Your task to perform on an android device: Open my contact list Image 0: 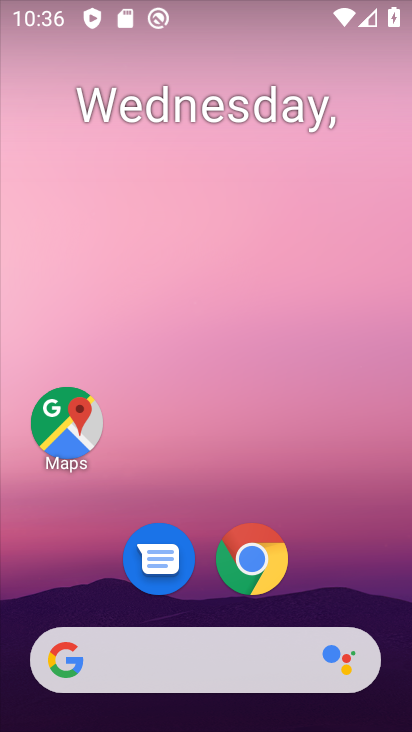
Step 0: drag from (389, 516) to (388, 172)
Your task to perform on an android device: Open my contact list Image 1: 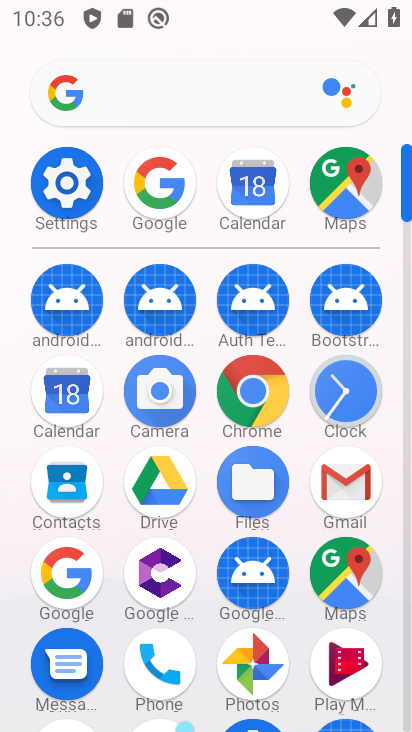
Step 1: click (78, 501)
Your task to perform on an android device: Open my contact list Image 2: 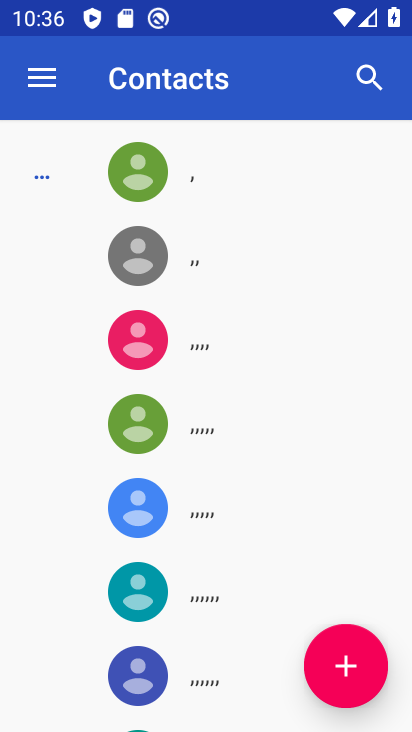
Step 2: task complete